Your task to perform on an android device: Turn on the flashlight Image 0: 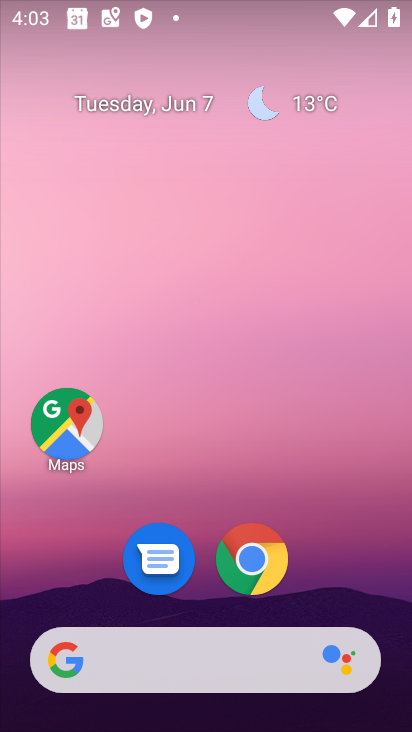
Step 0: drag from (348, 587) to (270, 125)
Your task to perform on an android device: Turn on the flashlight Image 1: 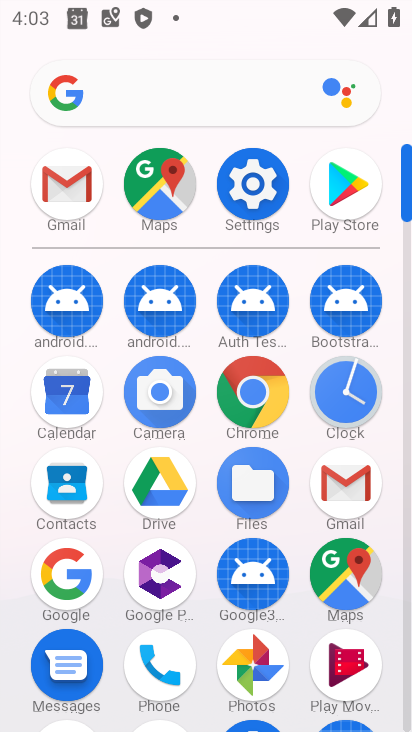
Step 1: click (246, 184)
Your task to perform on an android device: Turn on the flashlight Image 2: 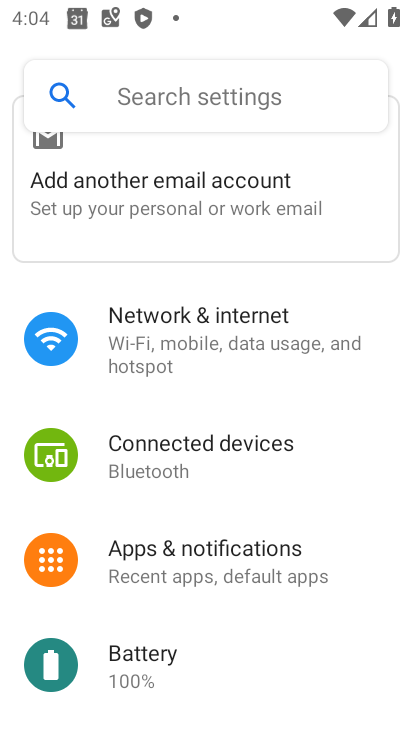
Step 2: drag from (205, 617) to (264, 458)
Your task to perform on an android device: Turn on the flashlight Image 3: 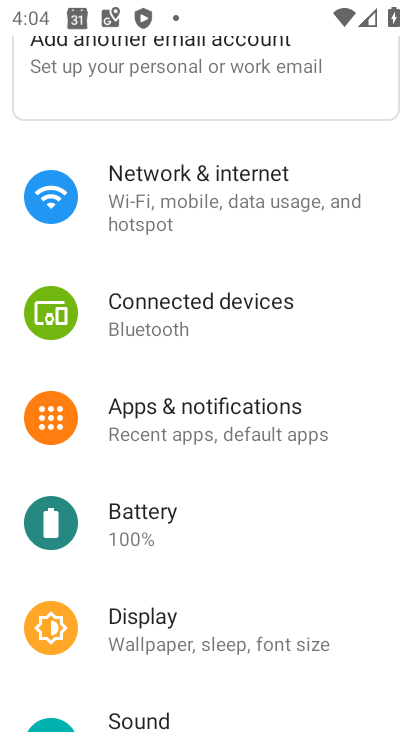
Step 3: drag from (201, 575) to (229, 437)
Your task to perform on an android device: Turn on the flashlight Image 4: 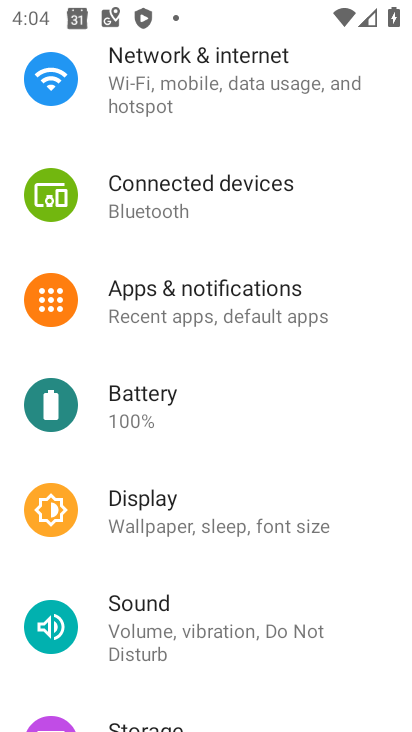
Step 4: drag from (181, 560) to (236, 474)
Your task to perform on an android device: Turn on the flashlight Image 5: 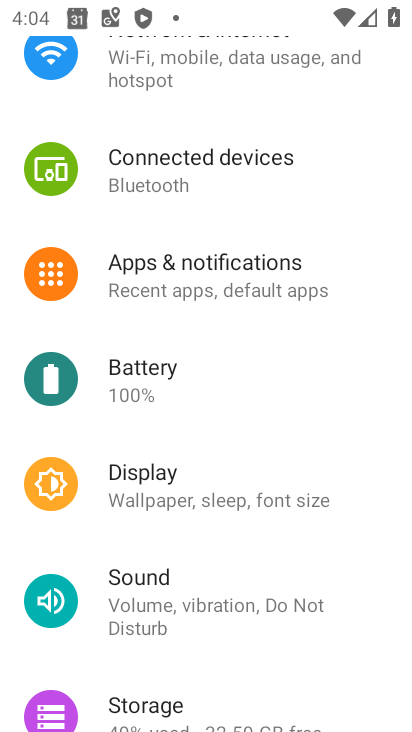
Step 5: drag from (188, 654) to (258, 516)
Your task to perform on an android device: Turn on the flashlight Image 6: 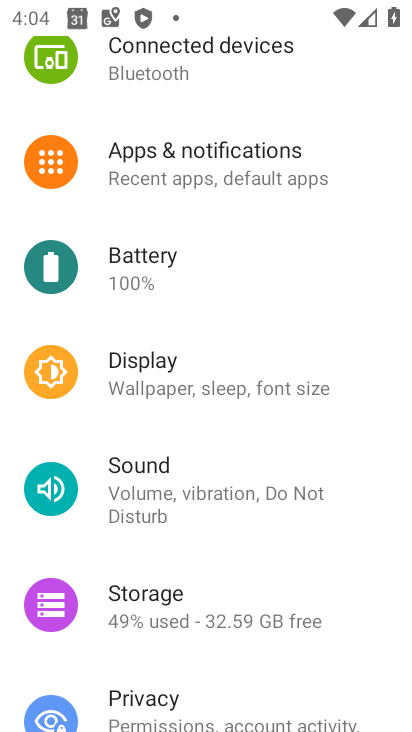
Step 6: drag from (207, 558) to (231, 443)
Your task to perform on an android device: Turn on the flashlight Image 7: 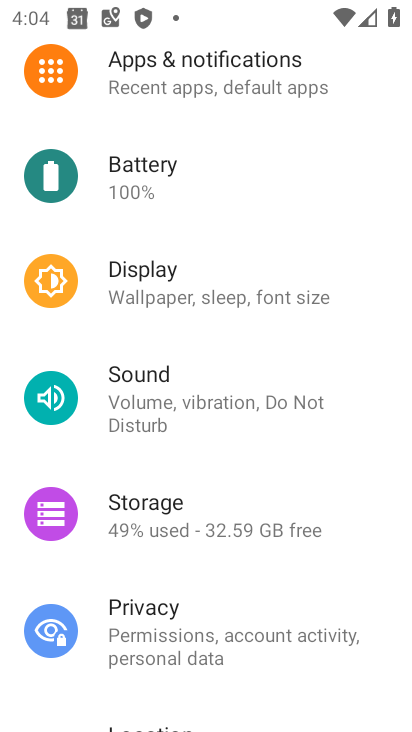
Step 7: drag from (190, 580) to (242, 470)
Your task to perform on an android device: Turn on the flashlight Image 8: 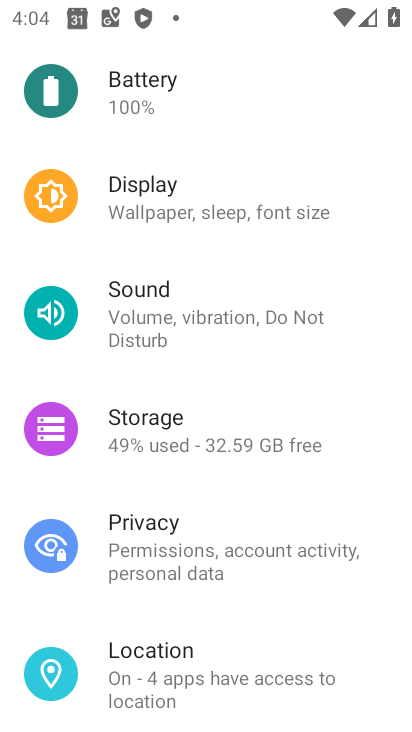
Step 8: drag from (170, 594) to (226, 453)
Your task to perform on an android device: Turn on the flashlight Image 9: 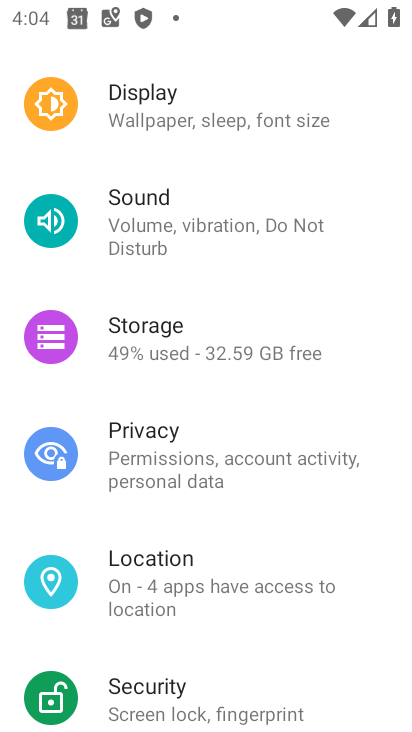
Step 9: drag from (148, 636) to (222, 502)
Your task to perform on an android device: Turn on the flashlight Image 10: 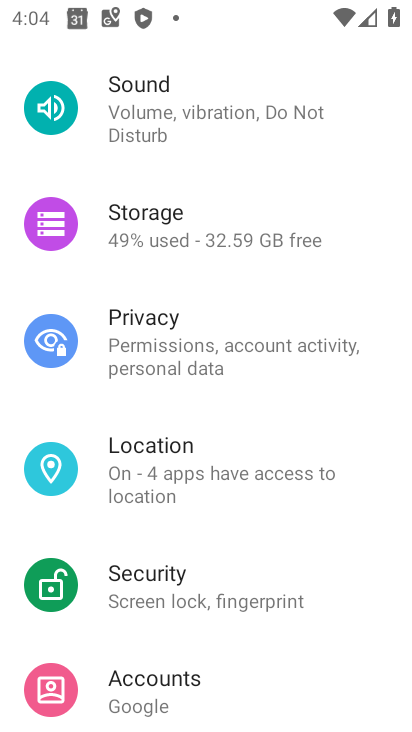
Step 10: drag from (140, 628) to (260, 499)
Your task to perform on an android device: Turn on the flashlight Image 11: 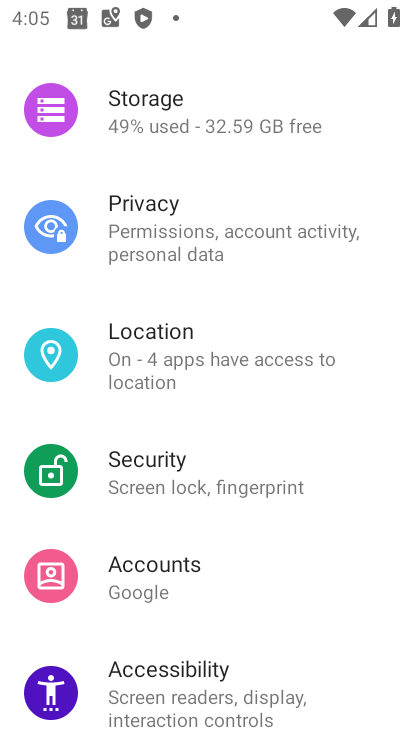
Step 11: drag from (153, 622) to (227, 490)
Your task to perform on an android device: Turn on the flashlight Image 12: 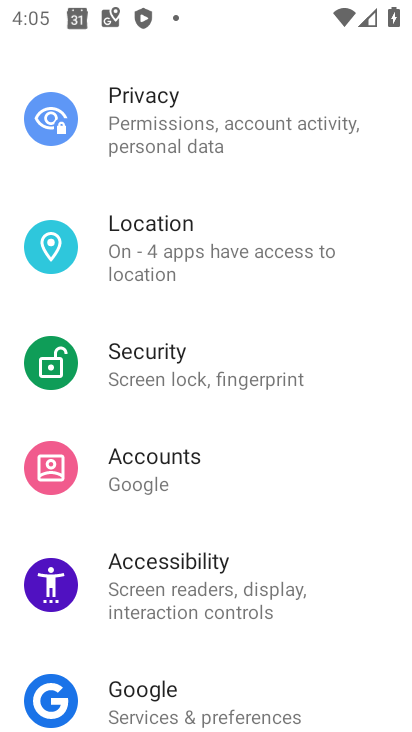
Step 12: drag from (147, 658) to (247, 535)
Your task to perform on an android device: Turn on the flashlight Image 13: 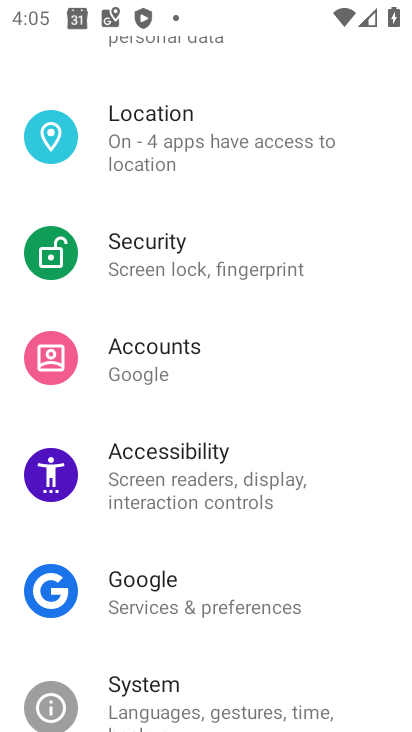
Step 13: drag from (270, 377) to (255, 473)
Your task to perform on an android device: Turn on the flashlight Image 14: 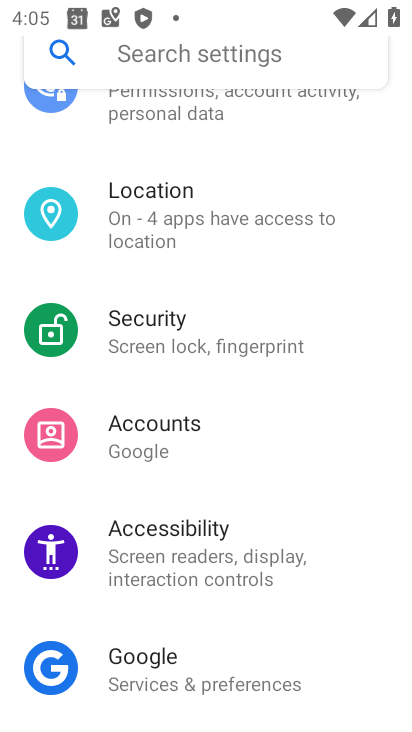
Step 14: drag from (246, 299) to (215, 470)
Your task to perform on an android device: Turn on the flashlight Image 15: 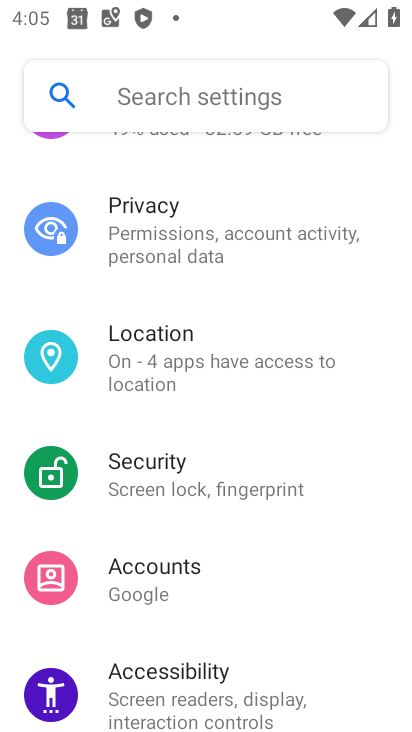
Step 15: drag from (253, 305) to (215, 597)
Your task to perform on an android device: Turn on the flashlight Image 16: 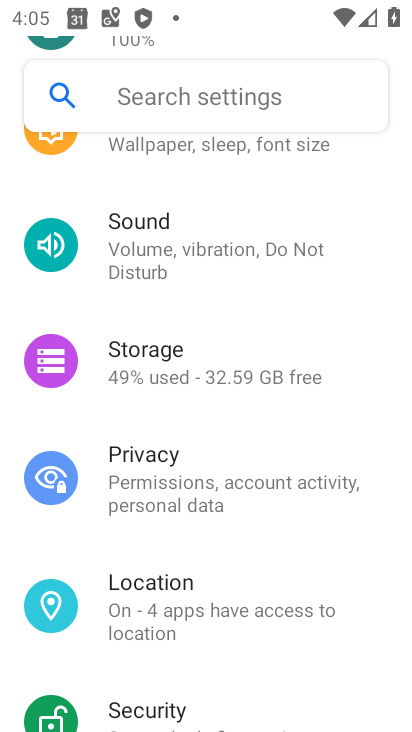
Step 16: drag from (293, 218) to (285, 426)
Your task to perform on an android device: Turn on the flashlight Image 17: 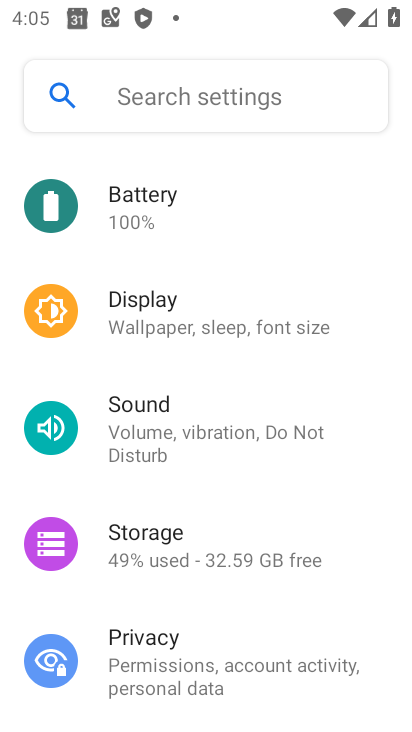
Step 17: click (251, 320)
Your task to perform on an android device: Turn on the flashlight Image 18: 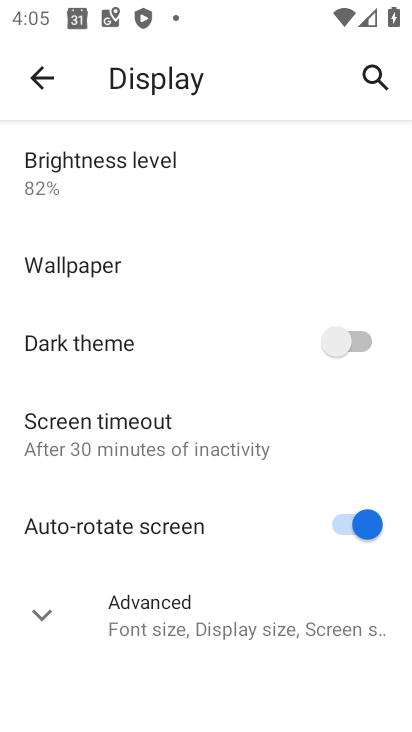
Step 18: drag from (169, 511) to (235, 355)
Your task to perform on an android device: Turn on the flashlight Image 19: 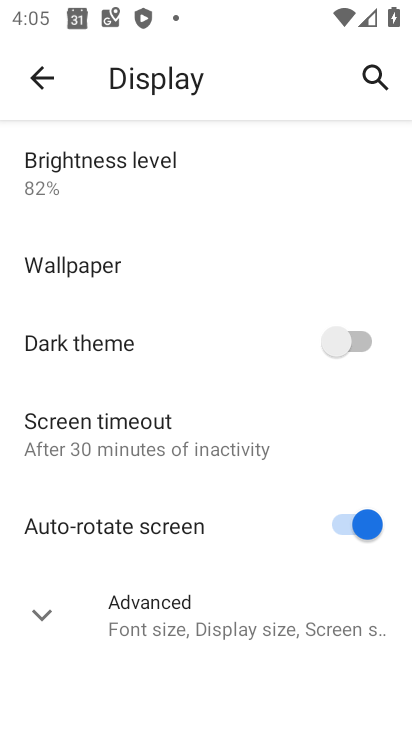
Step 19: click (205, 626)
Your task to perform on an android device: Turn on the flashlight Image 20: 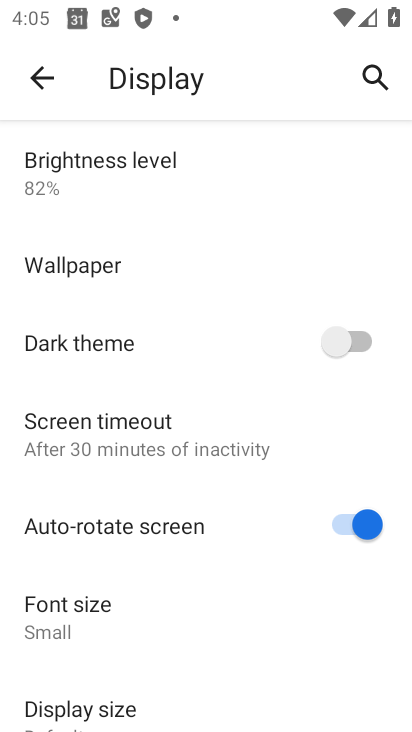
Step 20: task complete